Your task to perform on an android device: Open calendar and show me the fourth week of next month Image 0: 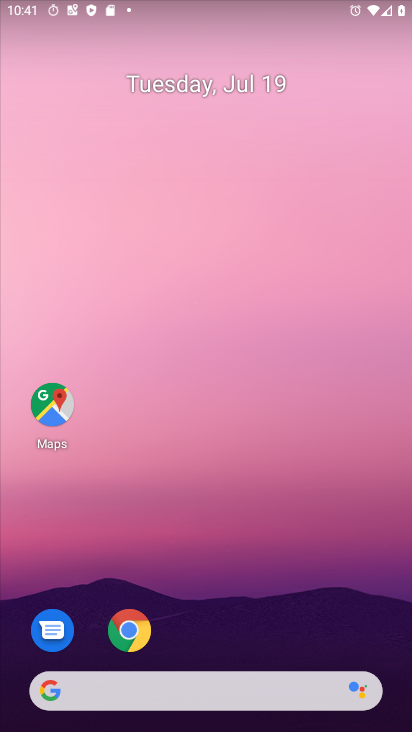
Step 0: press home button
Your task to perform on an android device: Open calendar and show me the fourth week of next month Image 1: 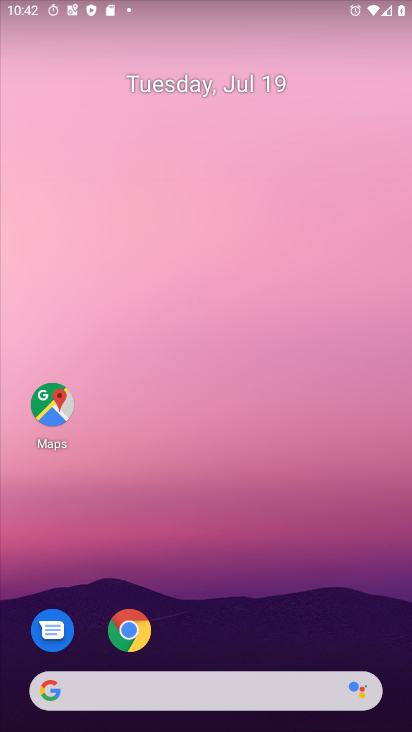
Step 1: drag from (301, 656) to (284, 112)
Your task to perform on an android device: Open calendar and show me the fourth week of next month Image 2: 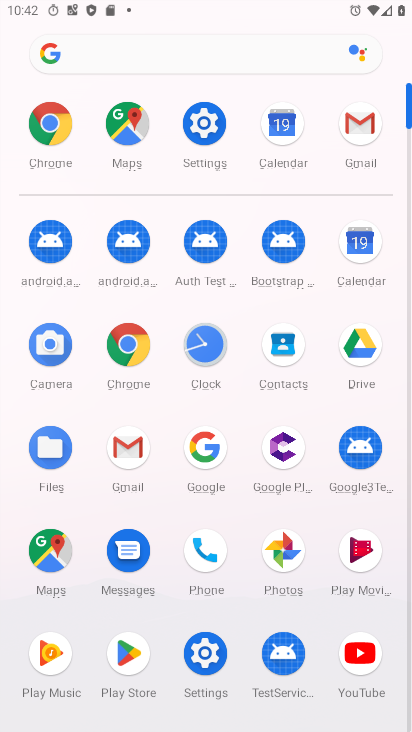
Step 2: click (363, 250)
Your task to perform on an android device: Open calendar and show me the fourth week of next month Image 3: 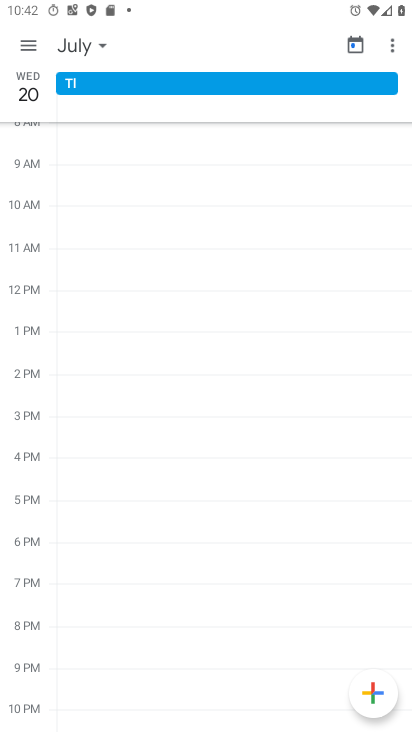
Step 3: click (23, 41)
Your task to perform on an android device: Open calendar and show me the fourth week of next month Image 4: 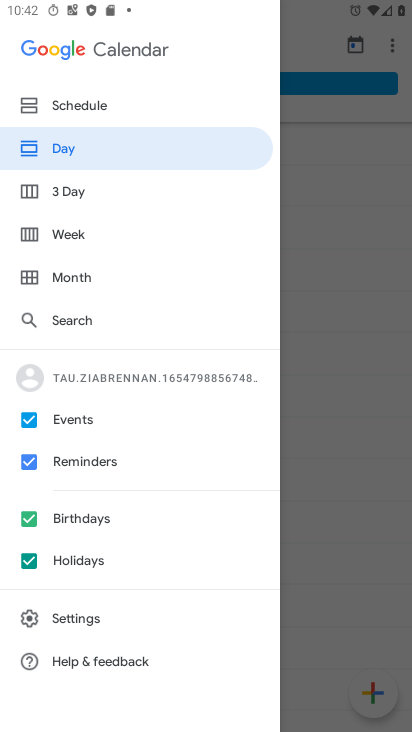
Step 4: click (68, 277)
Your task to perform on an android device: Open calendar and show me the fourth week of next month Image 5: 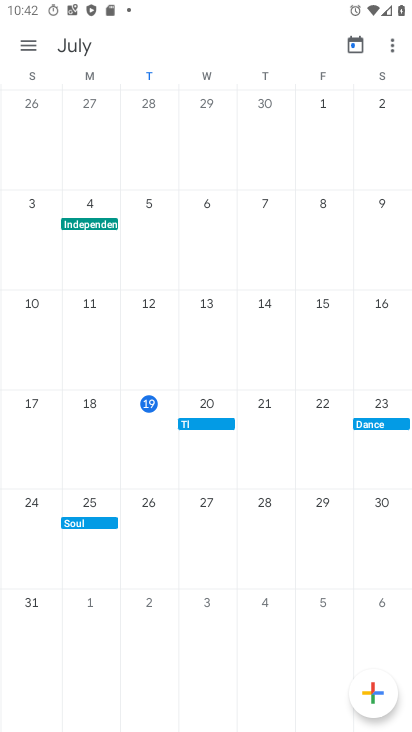
Step 5: task complete